Your task to perform on an android device: Open ESPN.com Image 0: 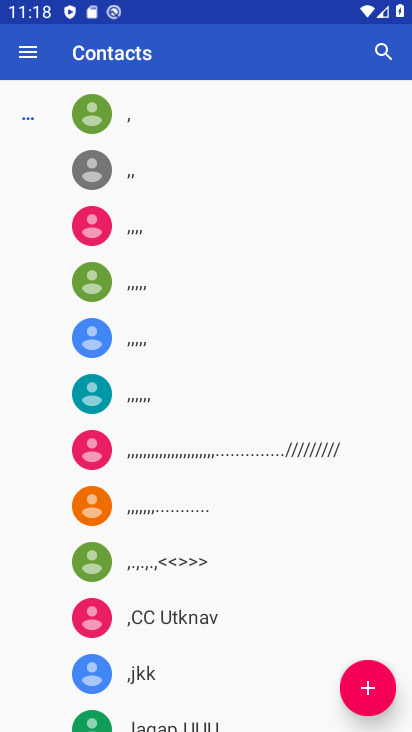
Step 0: press home button
Your task to perform on an android device: Open ESPN.com Image 1: 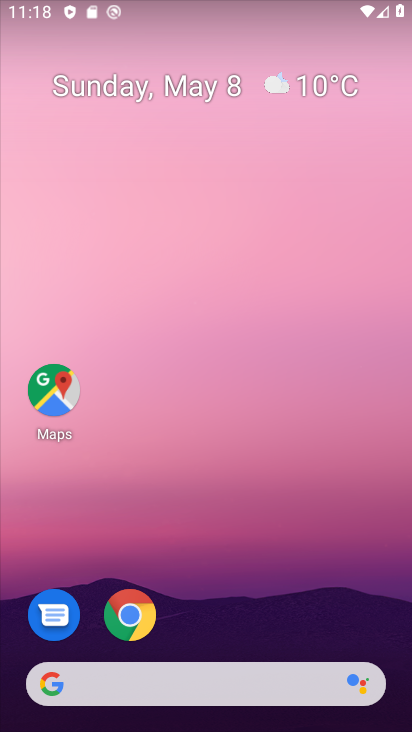
Step 1: drag from (288, 658) to (343, 269)
Your task to perform on an android device: Open ESPN.com Image 2: 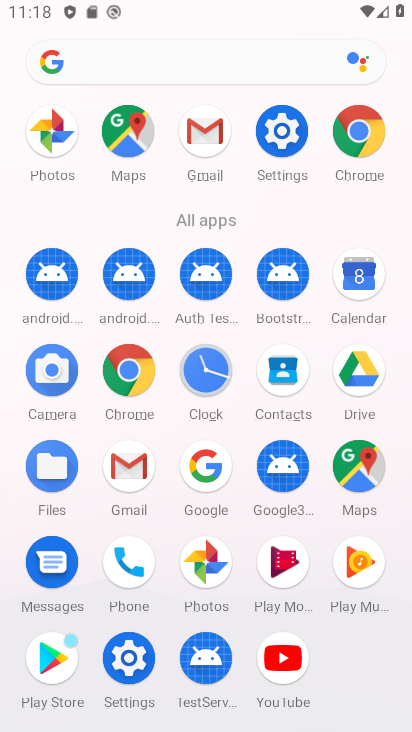
Step 2: click (381, 136)
Your task to perform on an android device: Open ESPN.com Image 3: 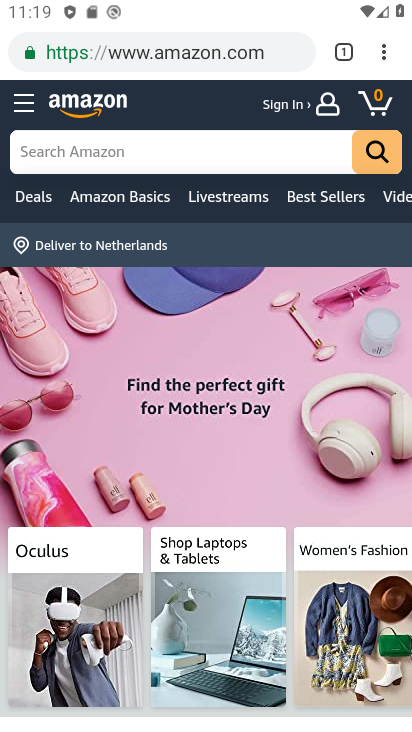
Step 3: click (340, 52)
Your task to perform on an android device: Open ESPN.com Image 4: 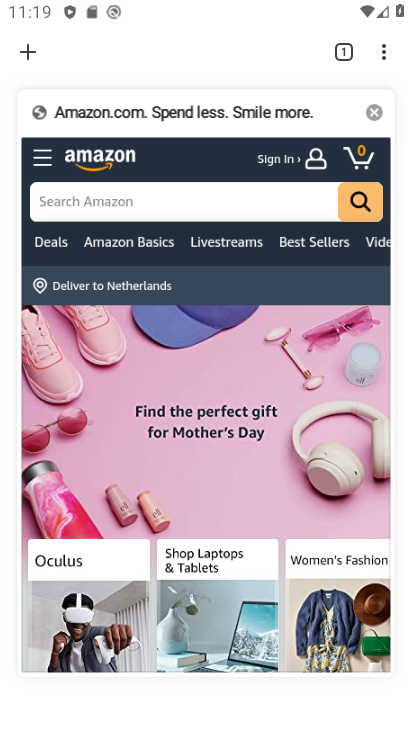
Step 4: click (35, 51)
Your task to perform on an android device: Open ESPN.com Image 5: 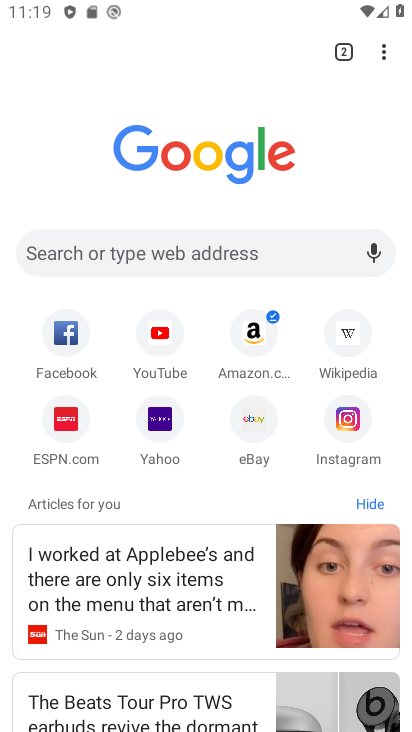
Step 5: click (79, 438)
Your task to perform on an android device: Open ESPN.com Image 6: 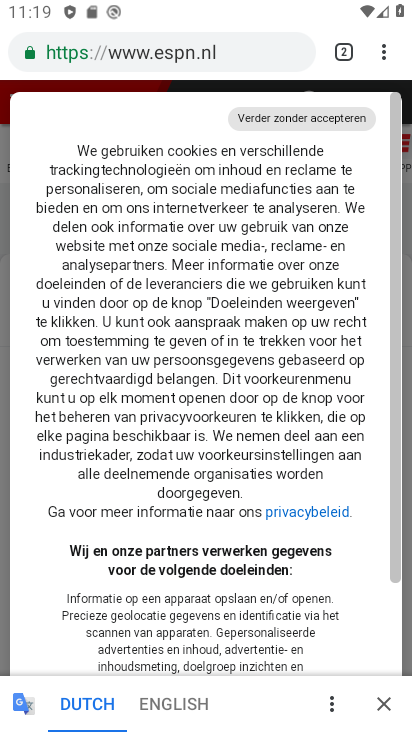
Step 6: drag from (284, 543) to (354, 221)
Your task to perform on an android device: Open ESPN.com Image 7: 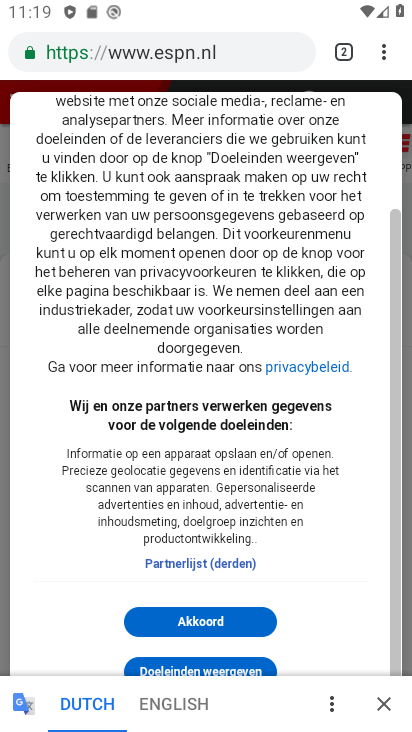
Step 7: click (189, 615)
Your task to perform on an android device: Open ESPN.com Image 8: 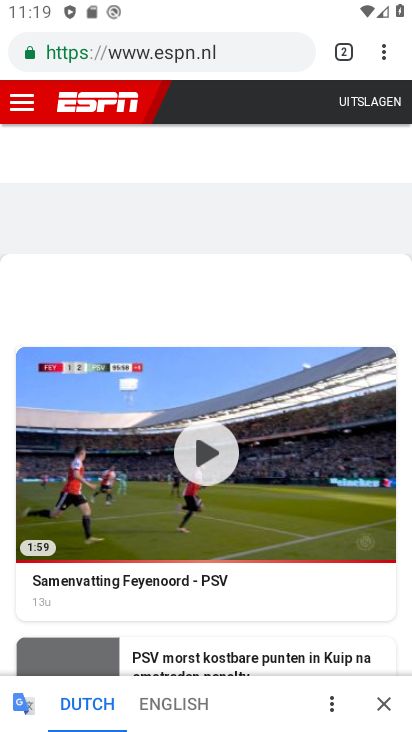
Step 8: task complete